Your task to perform on an android device: open wifi settings Image 0: 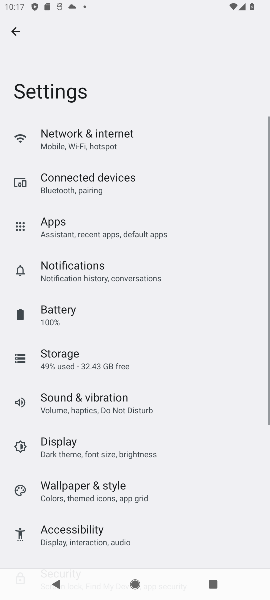
Step 0: press home button
Your task to perform on an android device: open wifi settings Image 1: 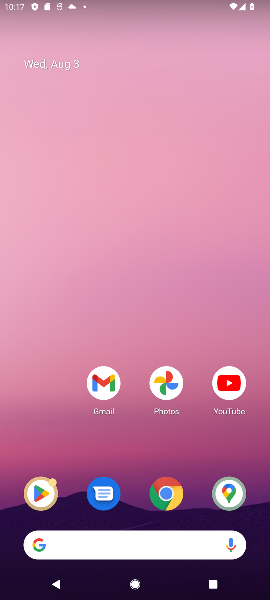
Step 1: drag from (135, 466) to (178, 73)
Your task to perform on an android device: open wifi settings Image 2: 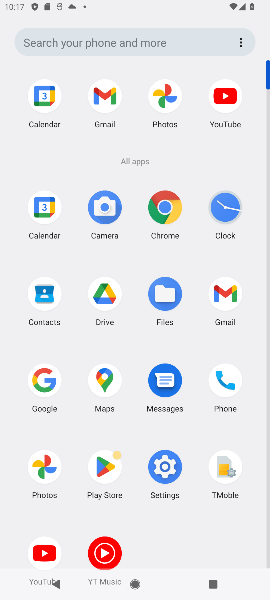
Step 2: click (161, 462)
Your task to perform on an android device: open wifi settings Image 3: 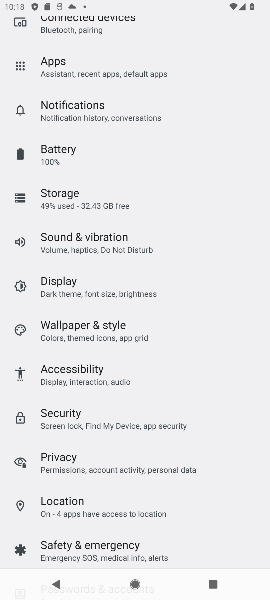
Step 3: drag from (99, 57) to (143, 429)
Your task to perform on an android device: open wifi settings Image 4: 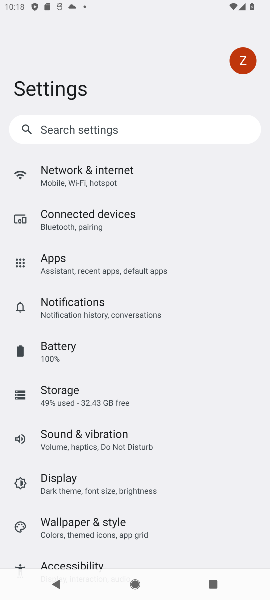
Step 4: click (139, 175)
Your task to perform on an android device: open wifi settings Image 5: 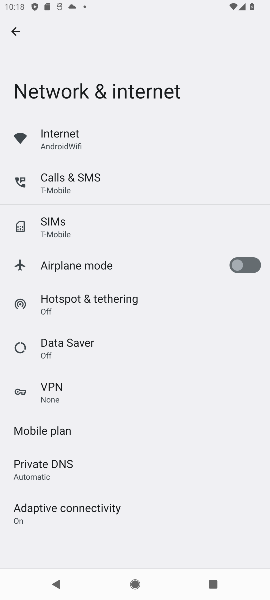
Step 5: click (100, 136)
Your task to perform on an android device: open wifi settings Image 6: 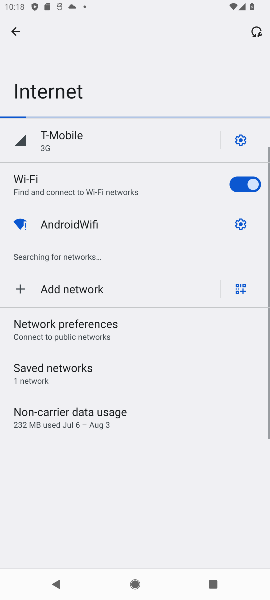
Step 6: click (16, 32)
Your task to perform on an android device: open wifi settings Image 7: 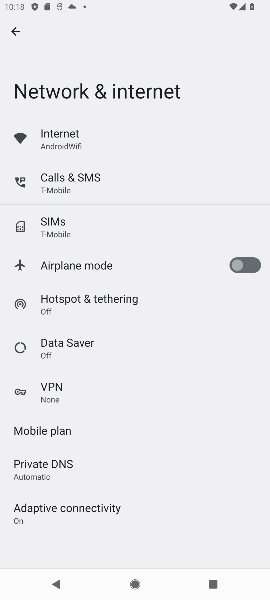
Step 7: click (18, 33)
Your task to perform on an android device: open wifi settings Image 8: 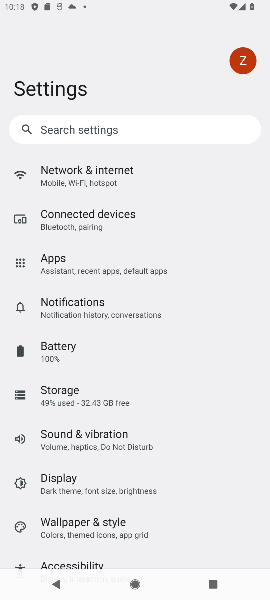
Step 8: click (111, 178)
Your task to perform on an android device: open wifi settings Image 9: 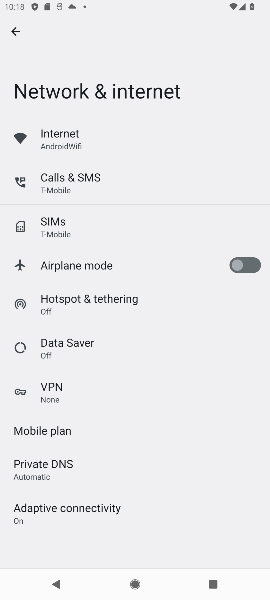
Step 9: click (89, 139)
Your task to perform on an android device: open wifi settings Image 10: 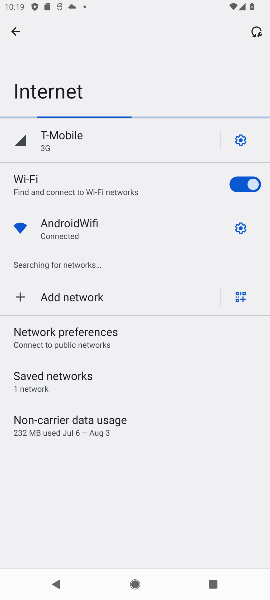
Step 10: task complete